Your task to perform on an android device: turn on data saver in the chrome app Image 0: 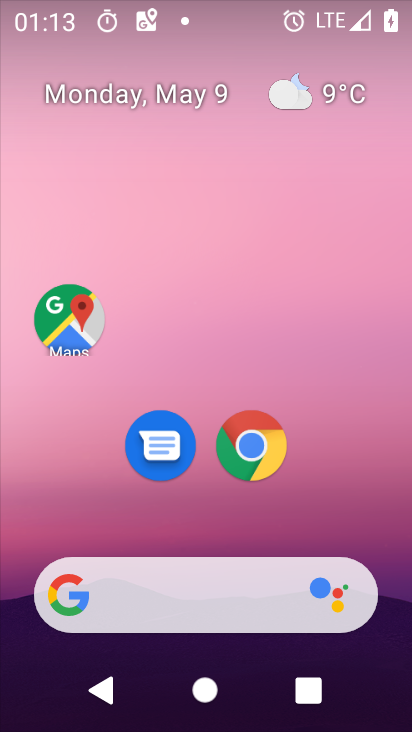
Step 0: click (254, 455)
Your task to perform on an android device: turn on data saver in the chrome app Image 1: 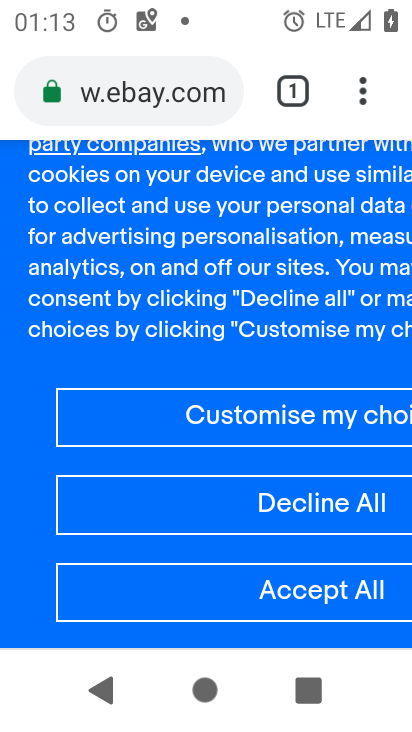
Step 1: drag from (360, 92) to (78, 482)
Your task to perform on an android device: turn on data saver in the chrome app Image 2: 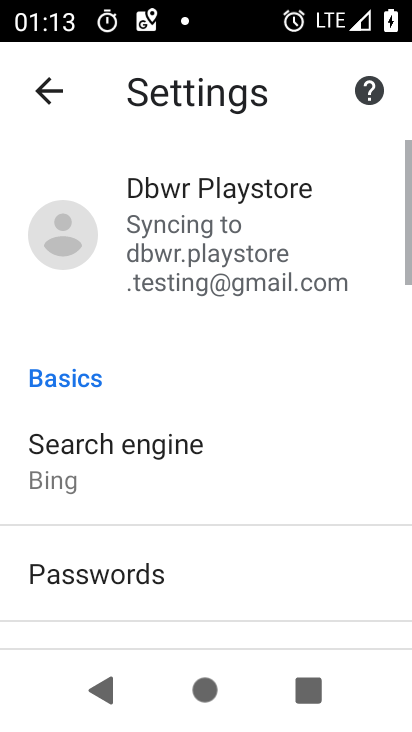
Step 2: drag from (225, 560) to (236, 205)
Your task to perform on an android device: turn on data saver in the chrome app Image 3: 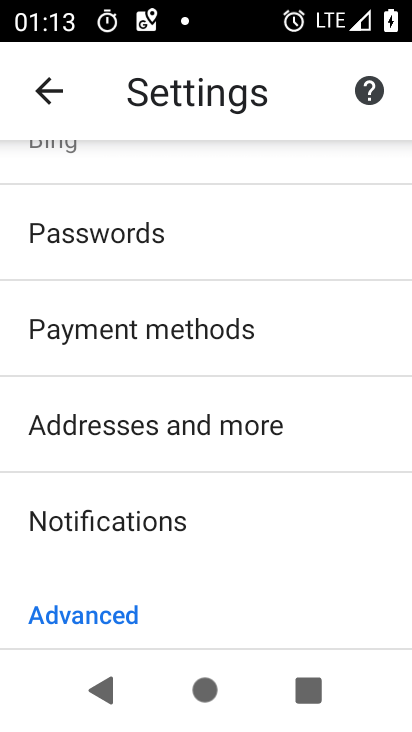
Step 3: drag from (251, 525) to (233, 184)
Your task to perform on an android device: turn on data saver in the chrome app Image 4: 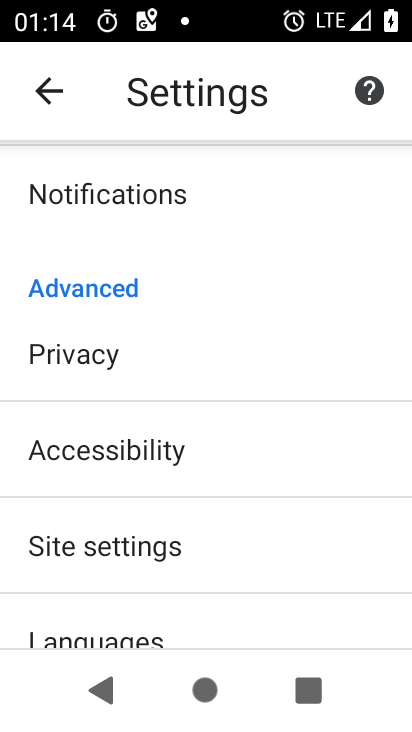
Step 4: drag from (200, 550) to (215, 307)
Your task to perform on an android device: turn on data saver in the chrome app Image 5: 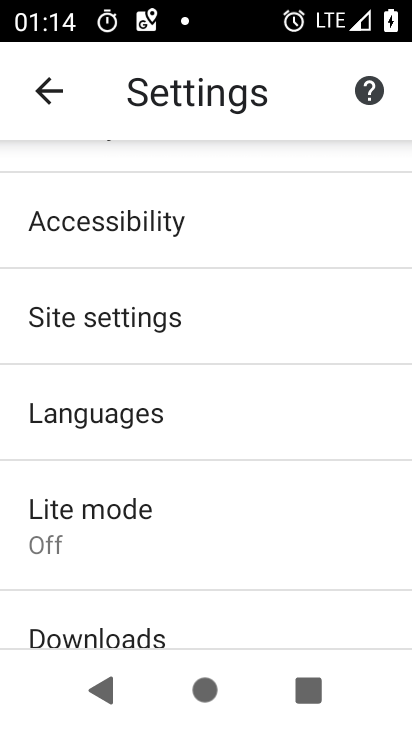
Step 5: click (89, 530)
Your task to perform on an android device: turn on data saver in the chrome app Image 6: 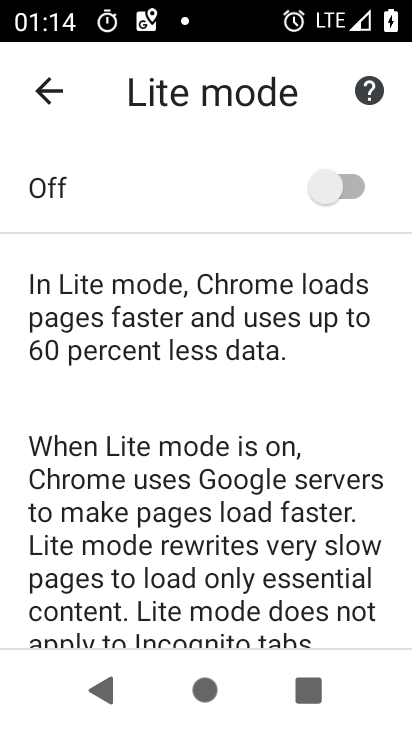
Step 6: click (333, 194)
Your task to perform on an android device: turn on data saver in the chrome app Image 7: 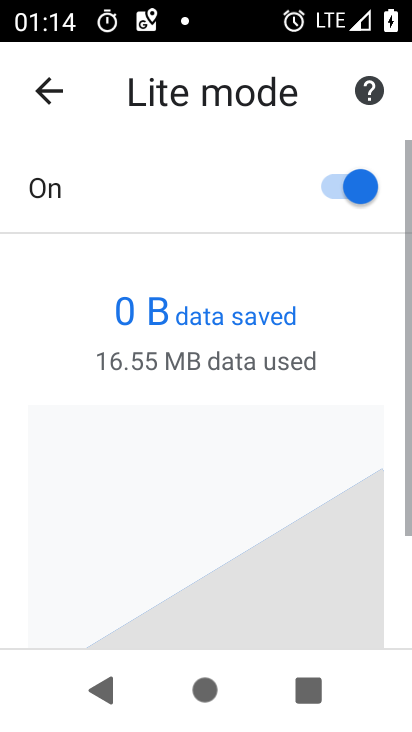
Step 7: task complete